Your task to perform on an android device: delete browsing data in the chrome app Image 0: 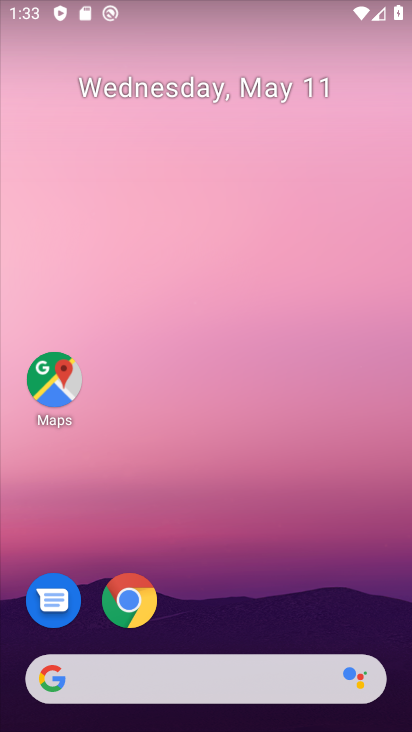
Step 0: drag from (203, 580) to (234, 335)
Your task to perform on an android device: delete browsing data in the chrome app Image 1: 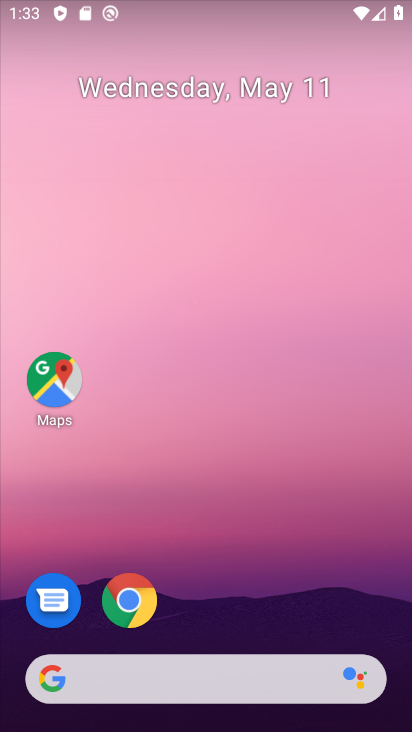
Step 1: drag from (244, 652) to (283, 310)
Your task to perform on an android device: delete browsing data in the chrome app Image 2: 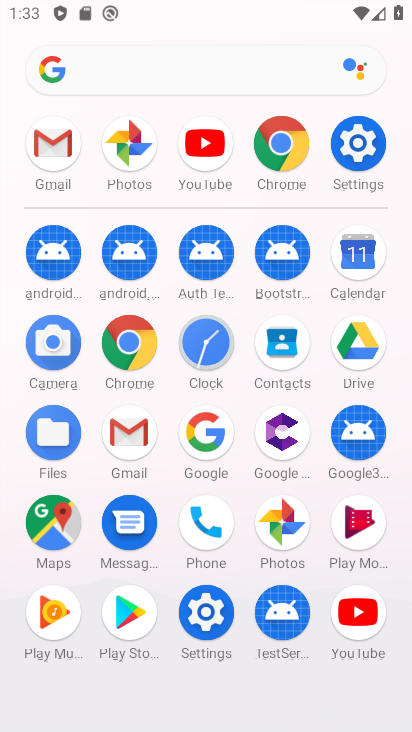
Step 2: click (269, 142)
Your task to perform on an android device: delete browsing data in the chrome app Image 3: 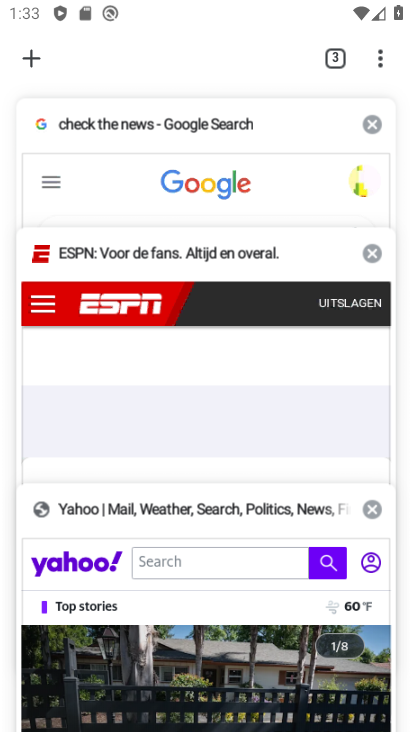
Step 3: click (373, 56)
Your task to perform on an android device: delete browsing data in the chrome app Image 4: 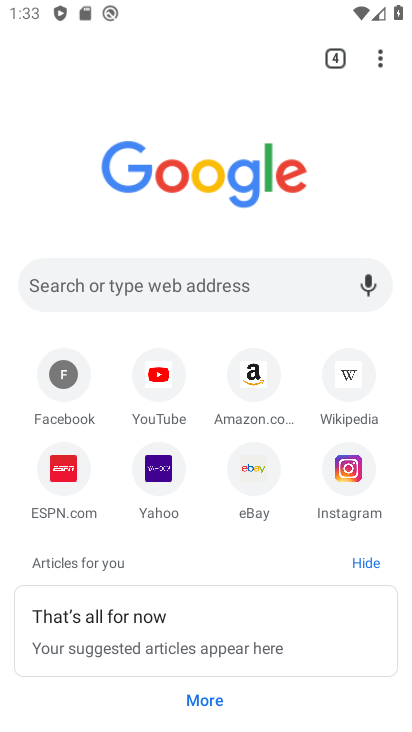
Step 4: click (369, 54)
Your task to perform on an android device: delete browsing data in the chrome app Image 5: 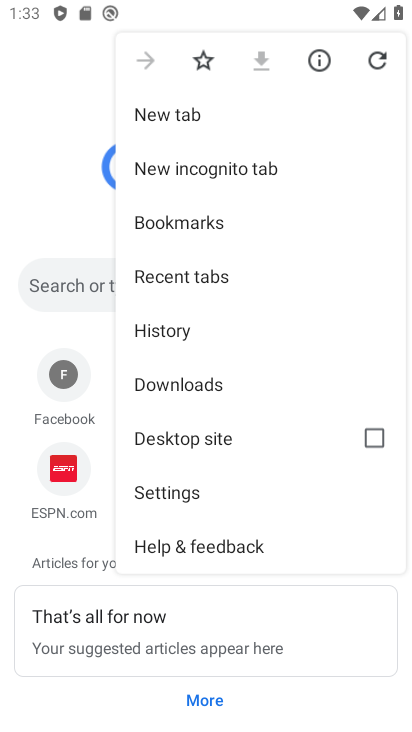
Step 5: click (205, 484)
Your task to perform on an android device: delete browsing data in the chrome app Image 6: 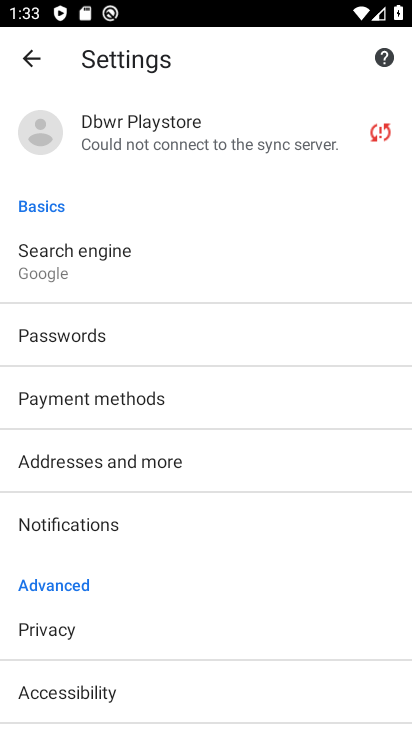
Step 6: drag from (161, 627) to (221, 387)
Your task to perform on an android device: delete browsing data in the chrome app Image 7: 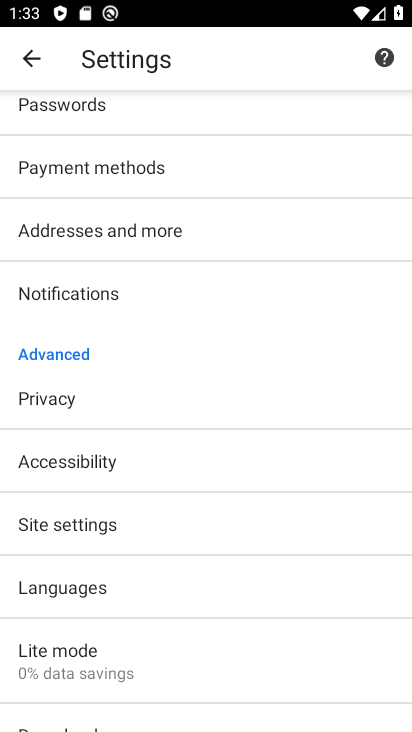
Step 7: click (16, 55)
Your task to perform on an android device: delete browsing data in the chrome app Image 8: 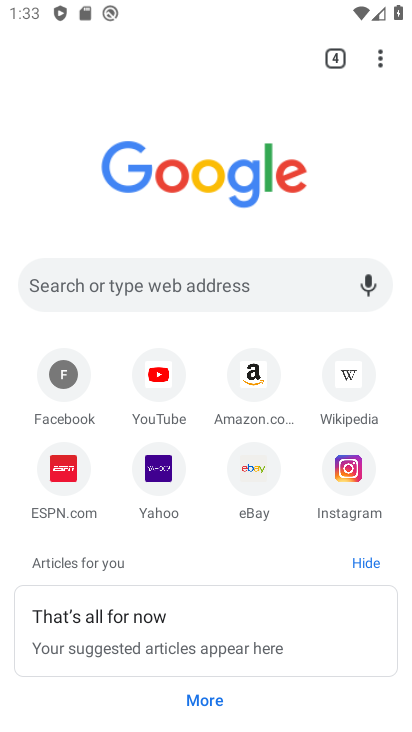
Step 8: click (367, 53)
Your task to perform on an android device: delete browsing data in the chrome app Image 9: 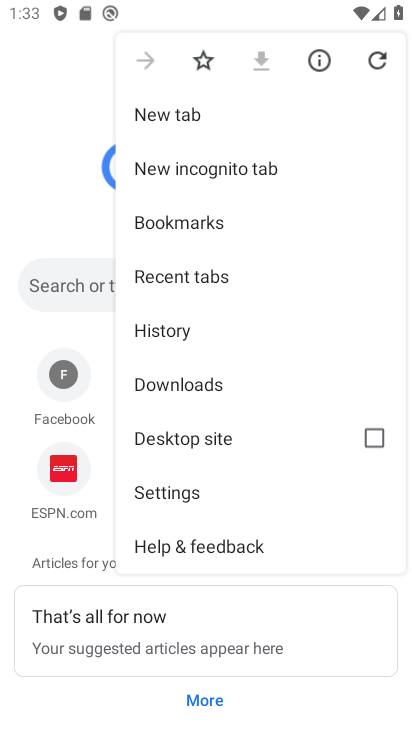
Step 9: click (197, 332)
Your task to perform on an android device: delete browsing data in the chrome app Image 10: 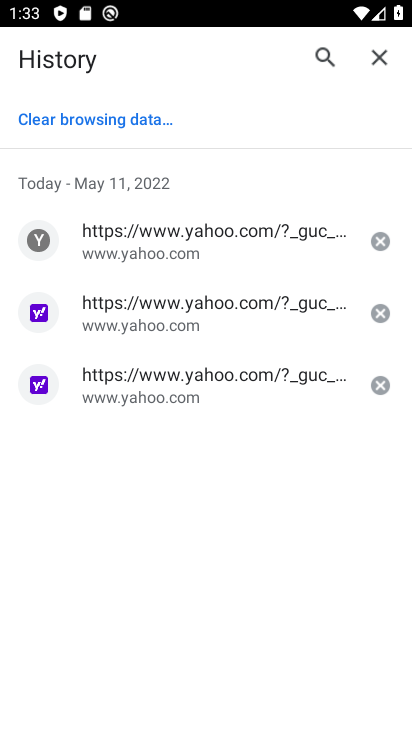
Step 10: click (68, 108)
Your task to perform on an android device: delete browsing data in the chrome app Image 11: 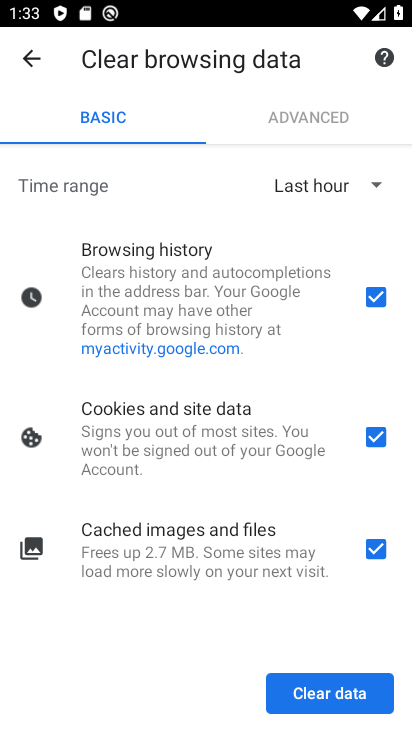
Step 11: click (316, 676)
Your task to perform on an android device: delete browsing data in the chrome app Image 12: 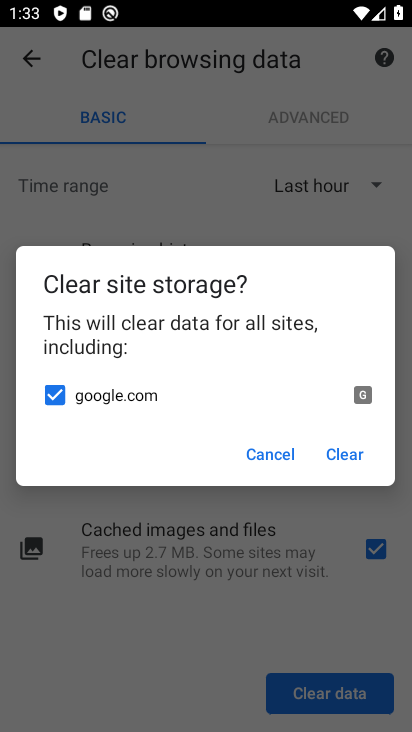
Step 12: click (330, 451)
Your task to perform on an android device: delete browsing data in the chrome app Image 13: 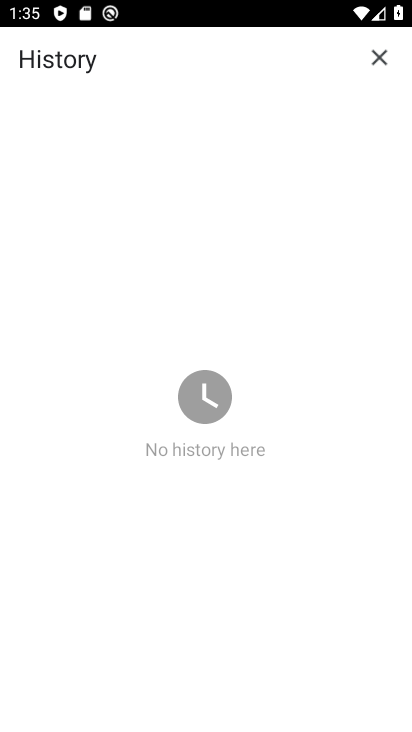
Step 13: task complete